Your task to perform on an android device: Go to privacy settings Image 0: 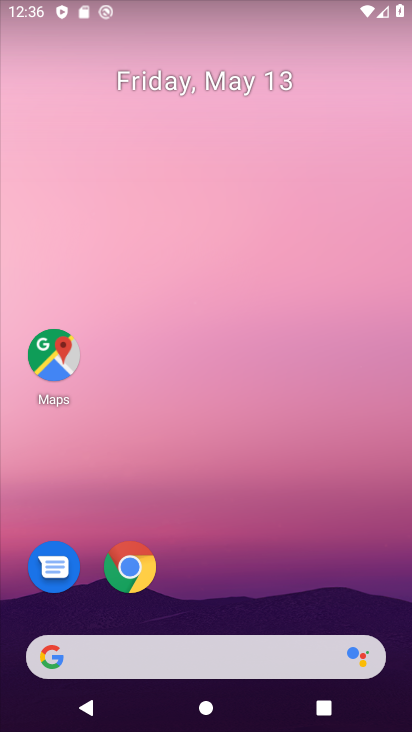
Step 0: drag from (211, 604) to (244, 80)
Your task to perform on an android device: Go to privacy settings Image 1: 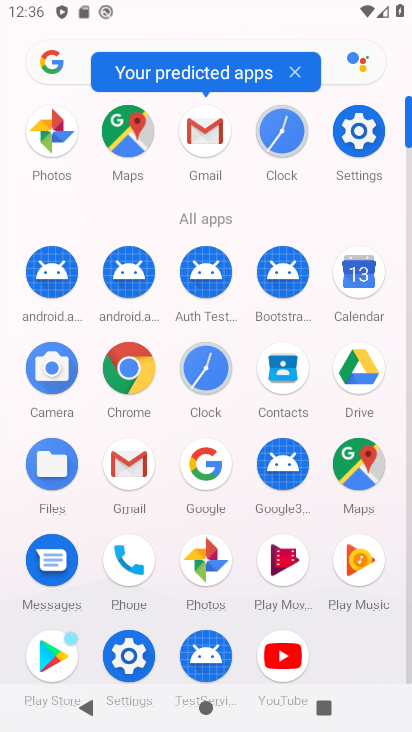
Step 1: click (359, 151)
Your task to perform on an android device: Go to privacy settings Image 2: 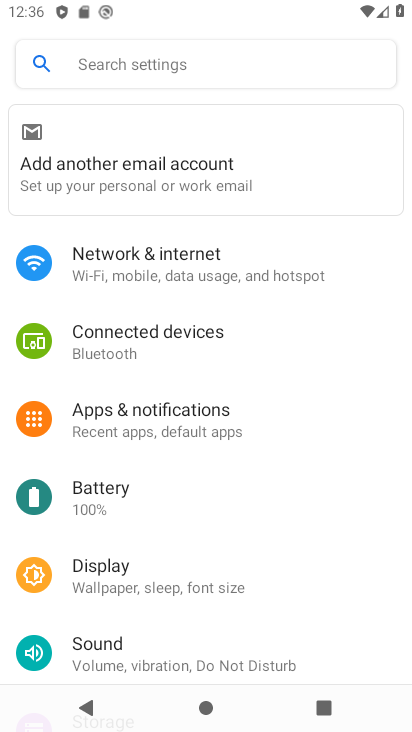
Step 2: drag from (233, 548) to (270, 165)
Your task to perform on an android device: Go to privacy settings Image 3: 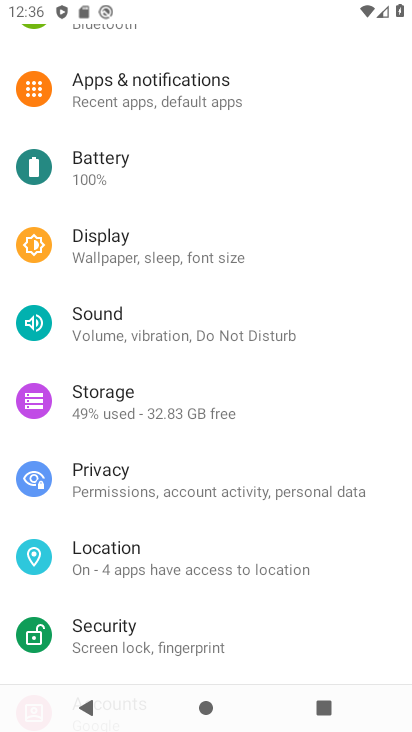
Step 3: click (226, 503)
Your task to perform on an android device: Go to privacy settings Image 4: 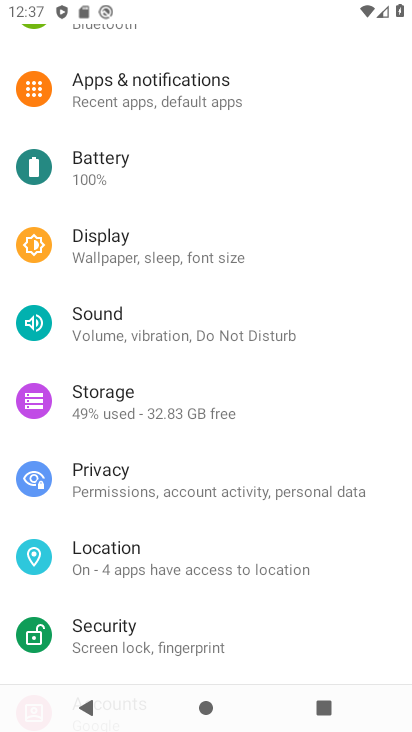
Step 4: task complete